Your task to perform on an android device: Is it going to rain this weekend? Image 0: 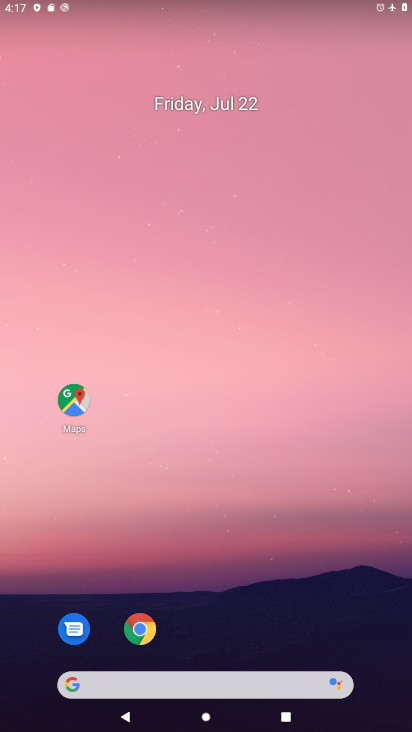
Step 0: drag from (249, 645) to (259, 120)
Your task to perform on an android device: Is it going to rain this weekend? Image 1: 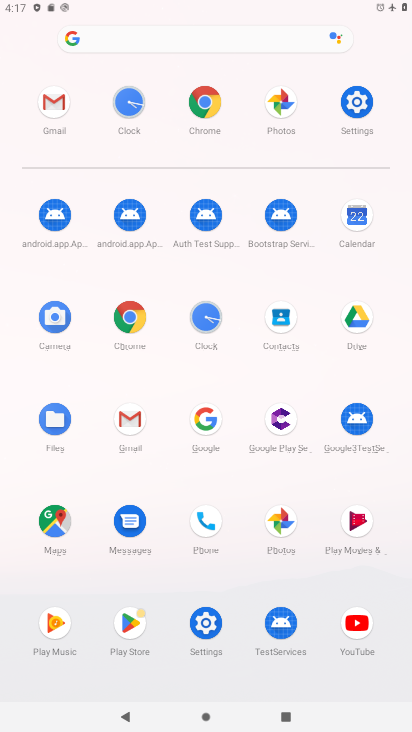
Step 1: click (209, 105)
Your task to perform on an android device: Is it going to rain this weekend? Image 2: 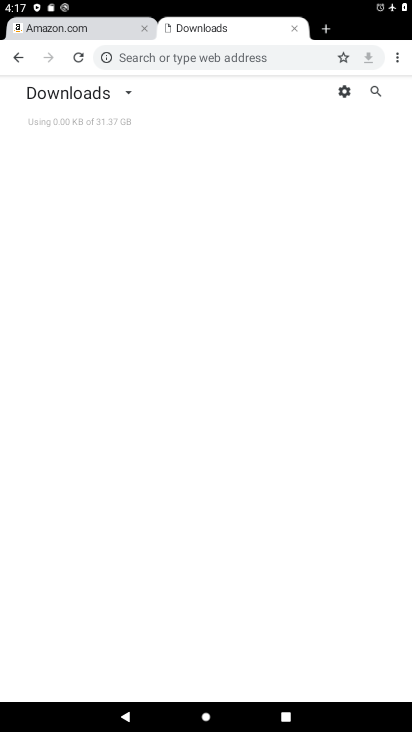
Step 2: click (298, 57)
Your task to perform on an android device: Is it going to rain this weekend? Image 3: 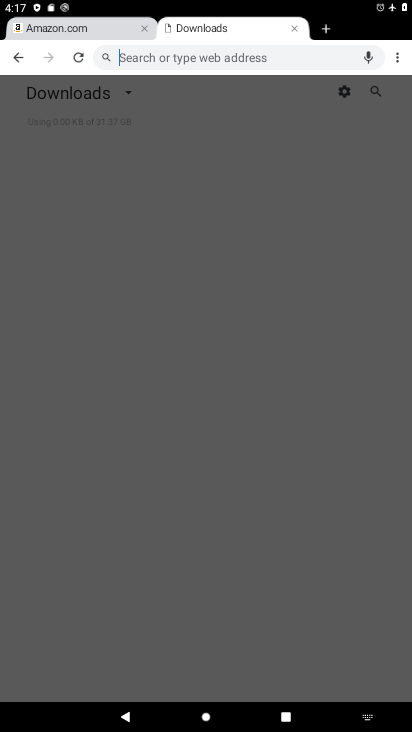
Step 3: type "weather"
Your task to perform on an android device: Is it going to rain this weekend? Image 4: 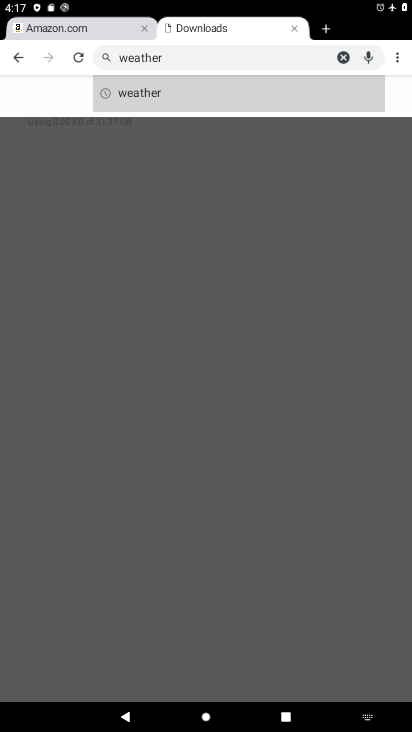
Step 4: click (252, 91)
Your task to perform on an android device: Is it going to rain this weekend? Image 5: 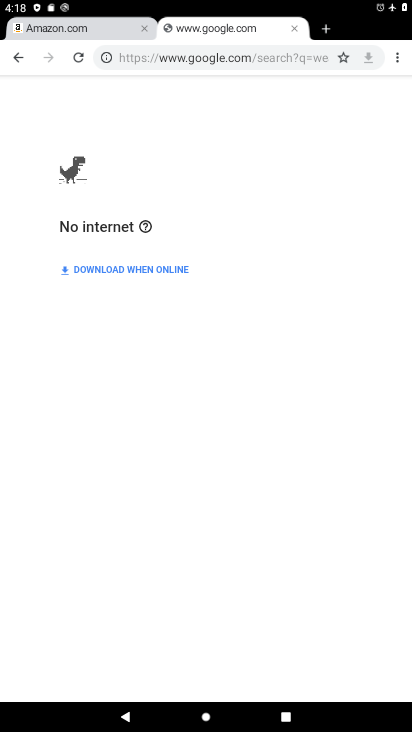
Step 5: task complete